Your task to perform on an android device: check out phone information Image 0: 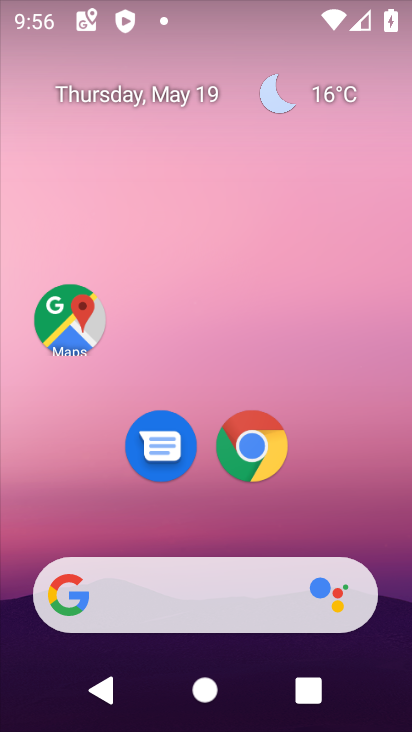
Step 0: drag from (209, 510) to (232, 8)
Your task to perform on an android device: check out phone information Image 1: 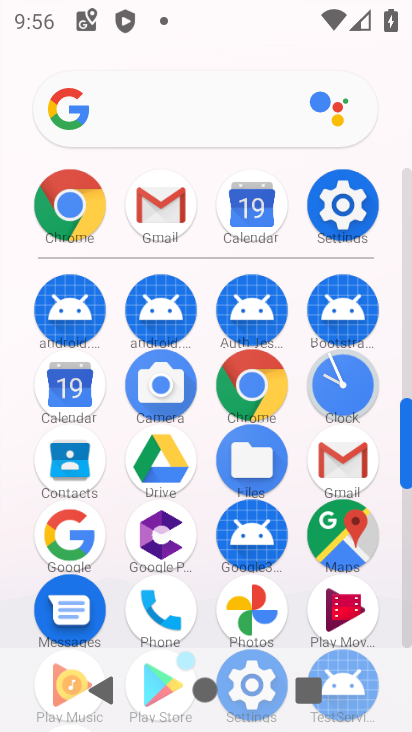
Step 1: click (347, 200)
Your task to perform on an android device: check out phone information Image 2: 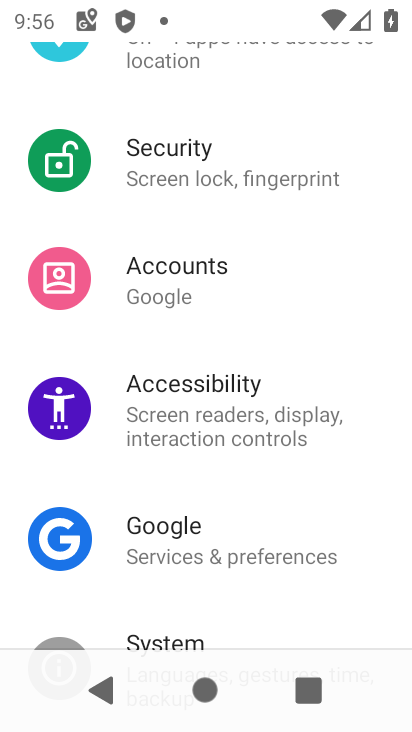
Step 2: drag from (251, 358) to (296, 138)
Your task to perform on an android device: check out phone information Image 3: 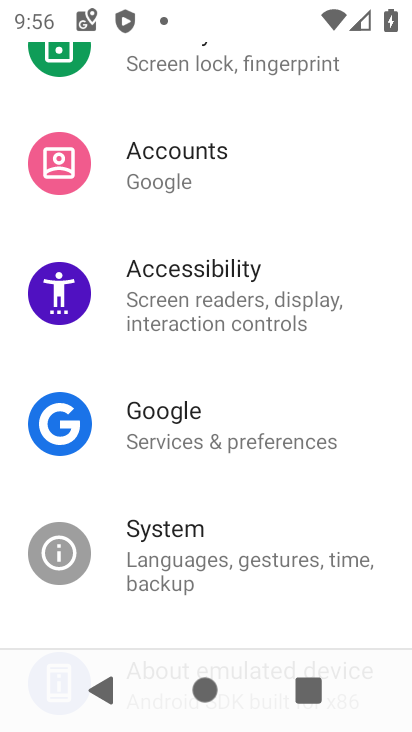
Step 3: drag from (201, 564) to (265, 128)
Your task to perform on an android device: check out phone information Image 4: 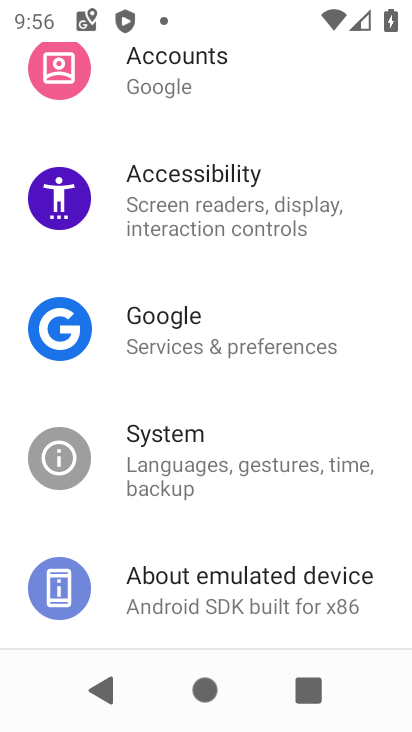
Step 4: click (227, 606)
Your task to perform on an android device: check out phone information Image 5: 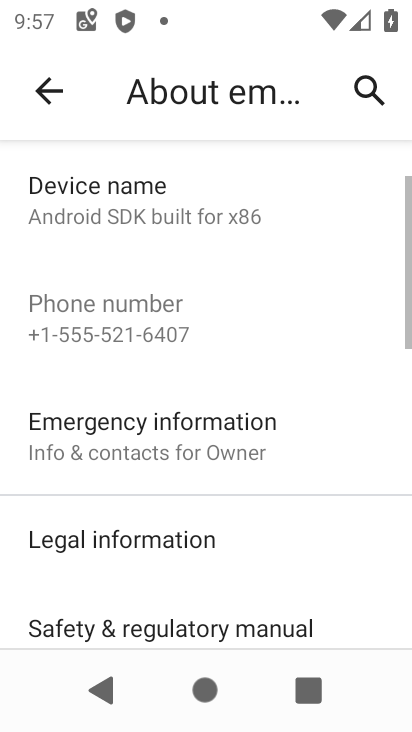
Step 5: task complete